Your task to perform on an android device: open device folders in google photos Image 0: 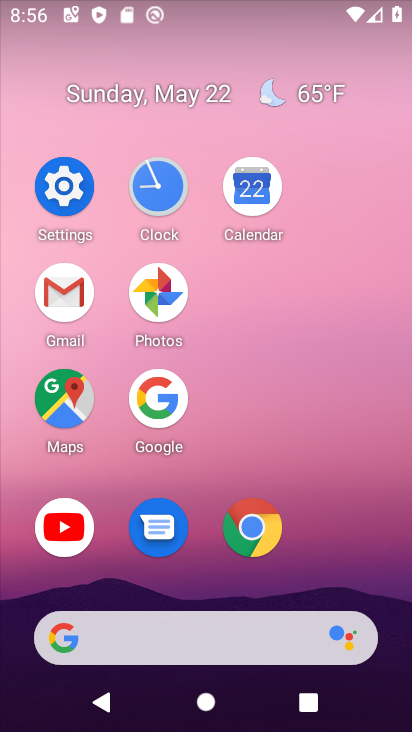
Step 0: click (138, 284)
Your task to perform on an android device: open device folders in google photos Image 1: 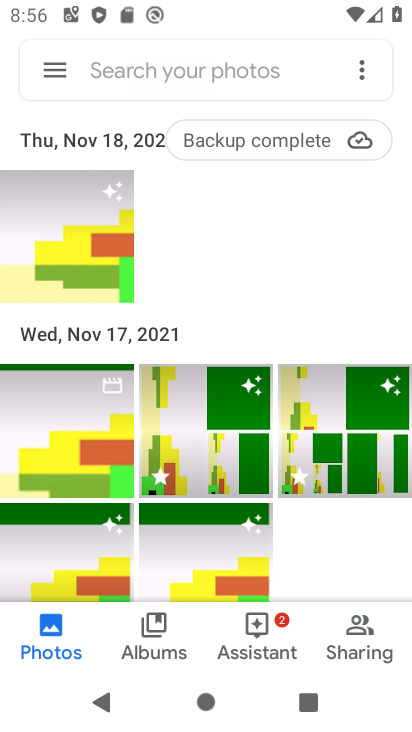
Step 1: click (57, 82)
Your task to perform on an android device: open device folders in google photos Image 2: 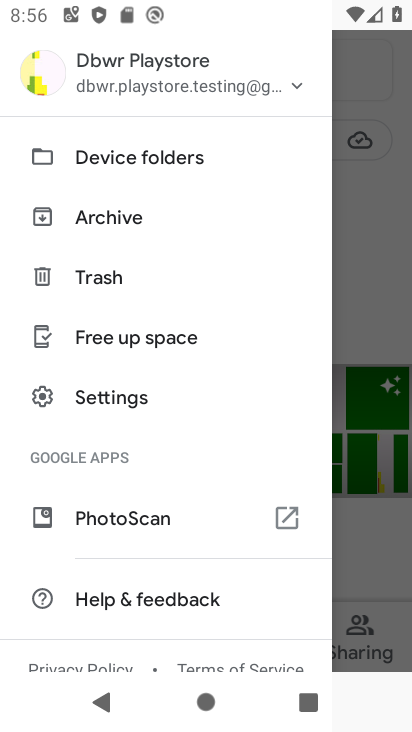
Step 2: click (124, 155)
Your task to perform on an android device: open device folders in google photos Image 3: 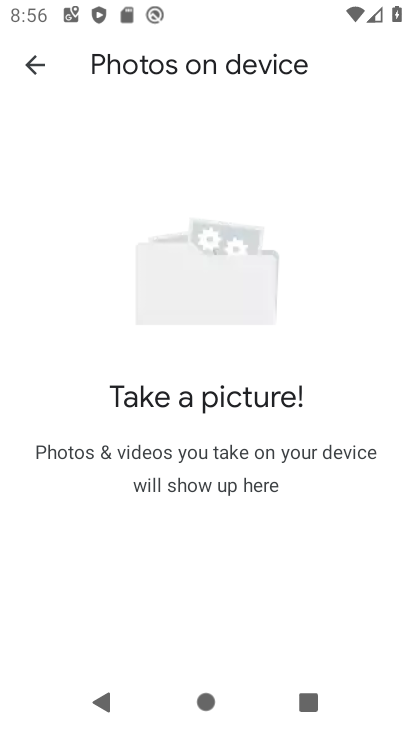
Step 3: task complete